Your task to perform on an android device: turn on data saver in the chrome app Image 0: 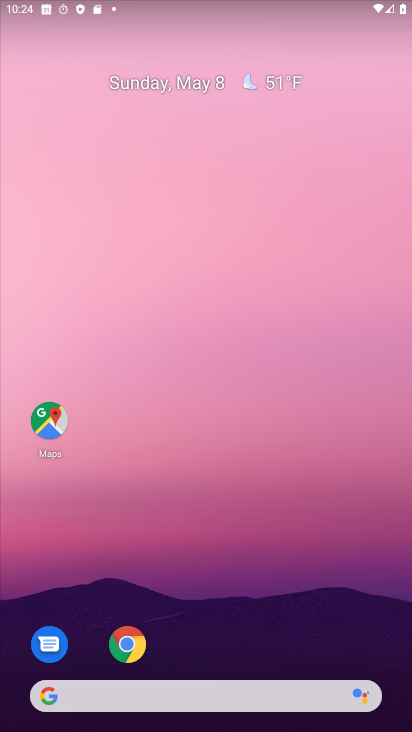
Step 0: drag from (224, 650) to (289, 238)
Your task to perform on an android device: turn on data saver in the chrome app Image 1: 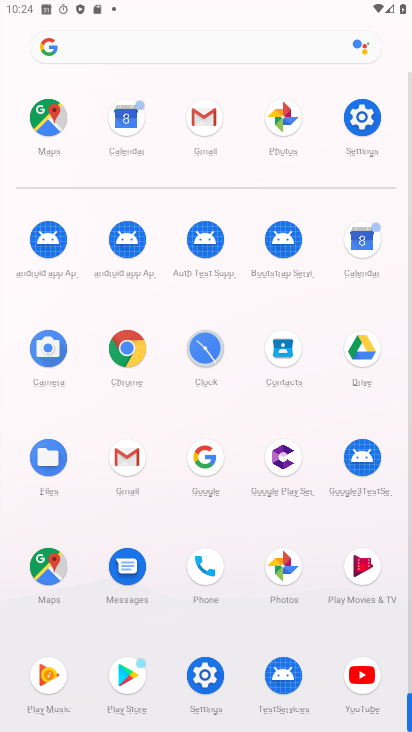
Step 1: click (143, 350)
Your task to perform on an android device: turn on data saver in the chrome app Image 2: 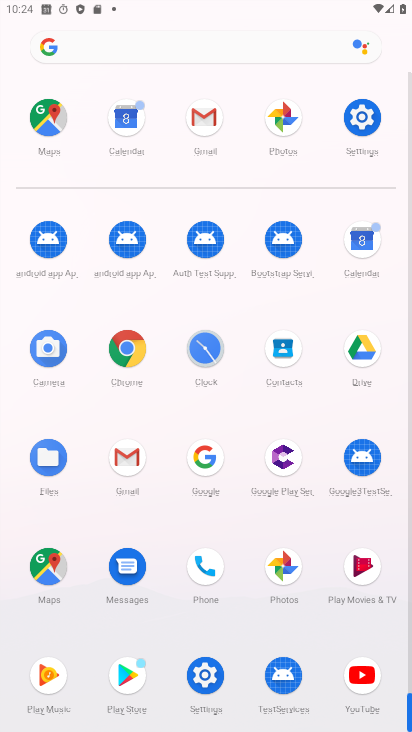
Step 2: click (143, 350)
Your task to perform on an android device: turn on data saver in the chrome app Image 3: 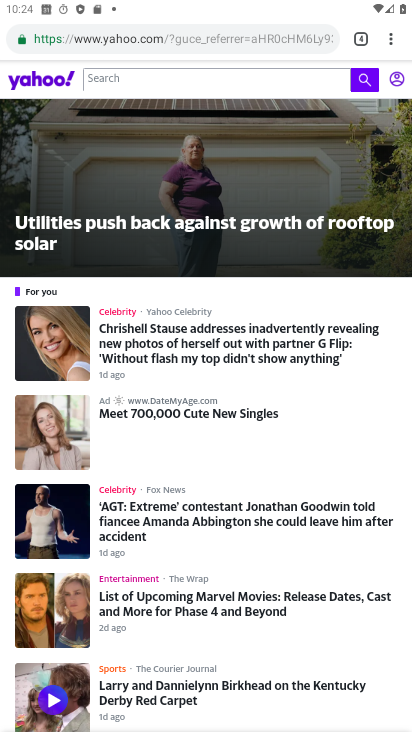
Step 3: drag from (389, 40) to (289, 478)
Your task to perform on an android device: turn on data saver in the chrome app Image 4: 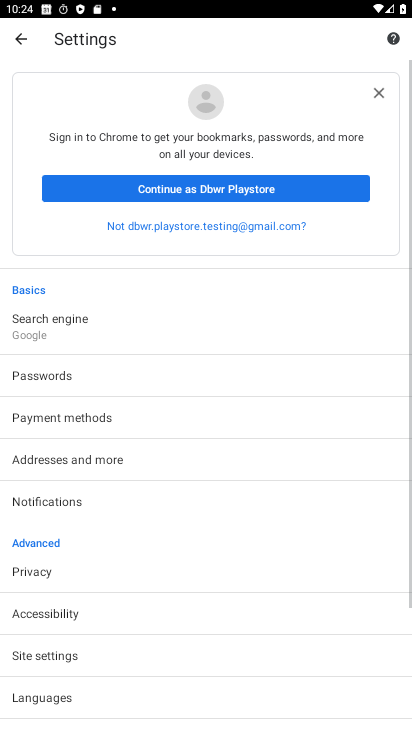
Step 4: drag from (130, 580) to (198, 282)
Your task to perform on an android device: turn on data saver in the chrome app Image 5: 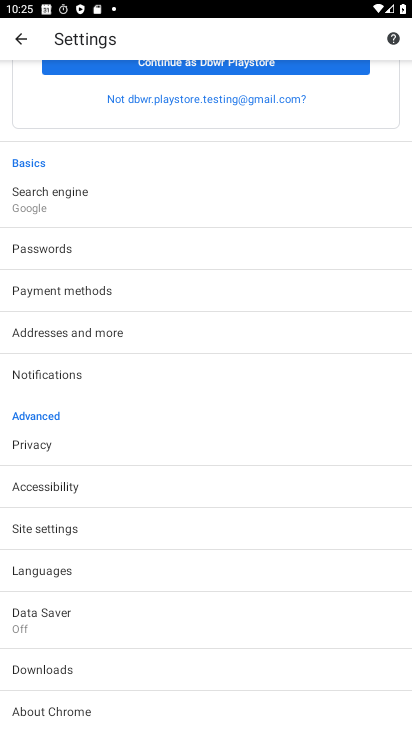
Step 5: click (95, 610)
Your task to perform on an android device: turn on data saver in the chrome app Image 6: 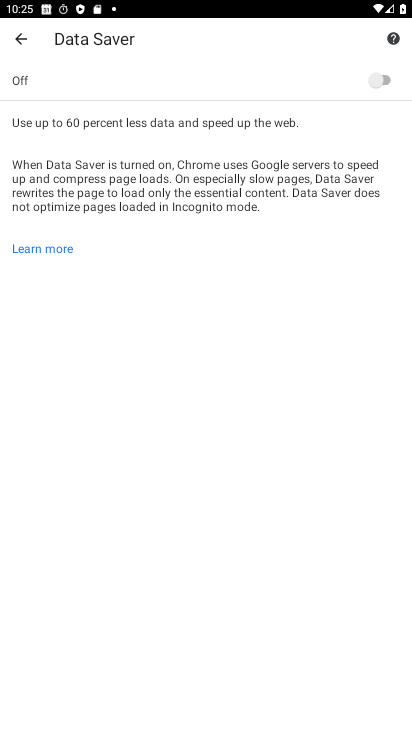
Step 6: click (382, 86)
Your task to perform on an android device: turn on data saver in the chrome app Image 7: 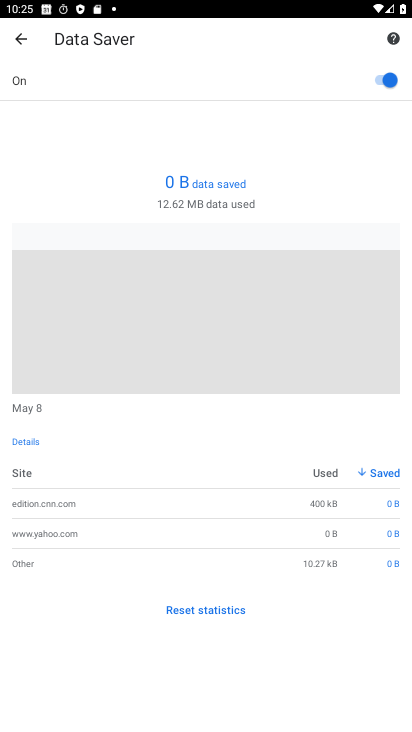
Step 7: task complete